Your task to perform on an android device: show emergency info Image 0: 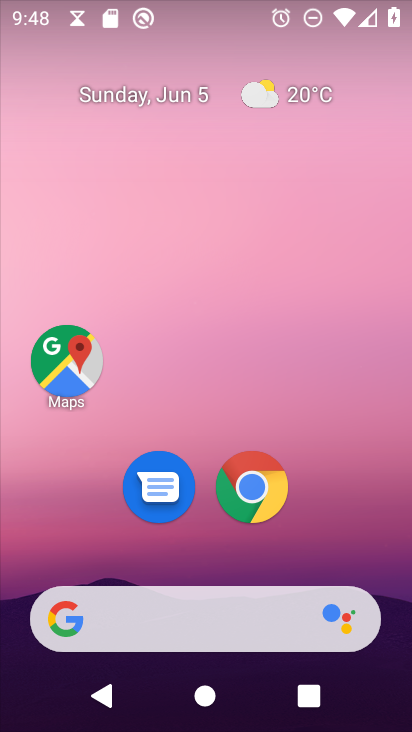
Step 0: drag from (285, 545) to (292, 152)
Your task to perform on an android device: show emergency info Image 1: 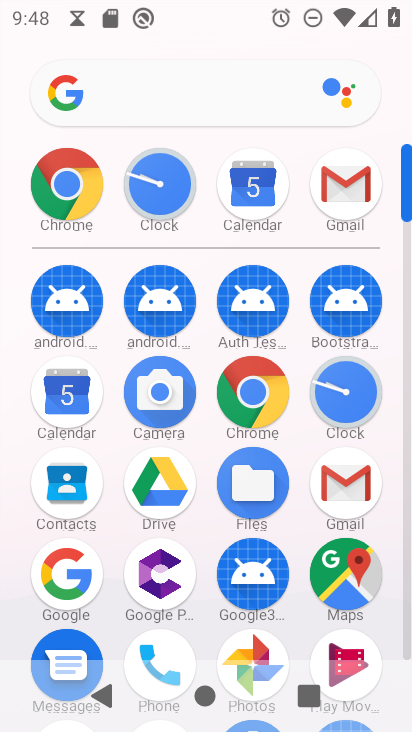
Step 1: drag from (206, 588) to (228, 292)
Your task to perform on an android device: show emergency info Image 2: 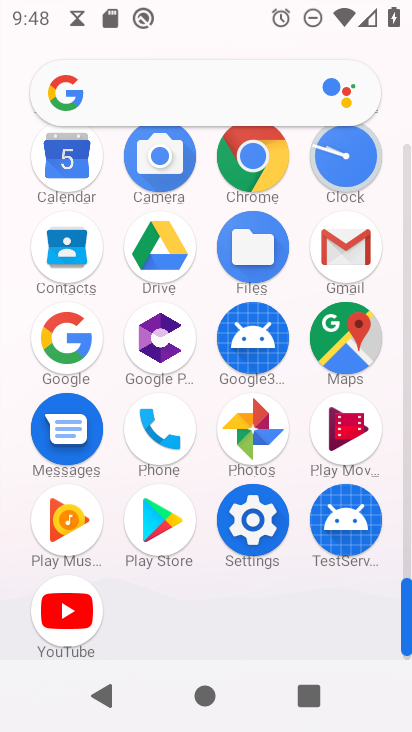
Step 2: click (243, 524)
Your task to perform on an android device: show emergency info Image 3: 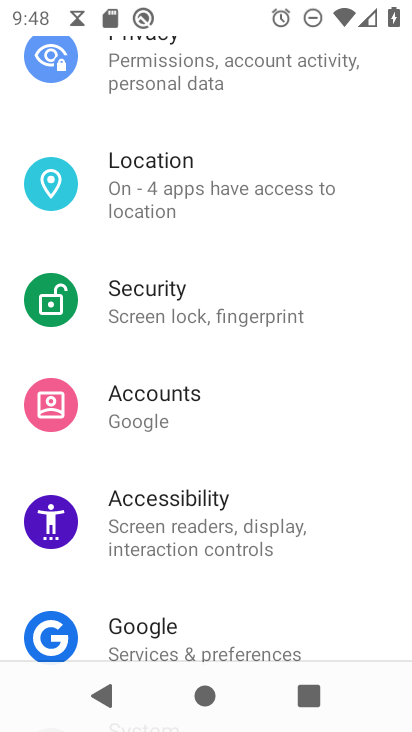
Step 3: drag from (206, 565) to (210, 190)
Your task to perform on an android device: show emergency info Image 4: 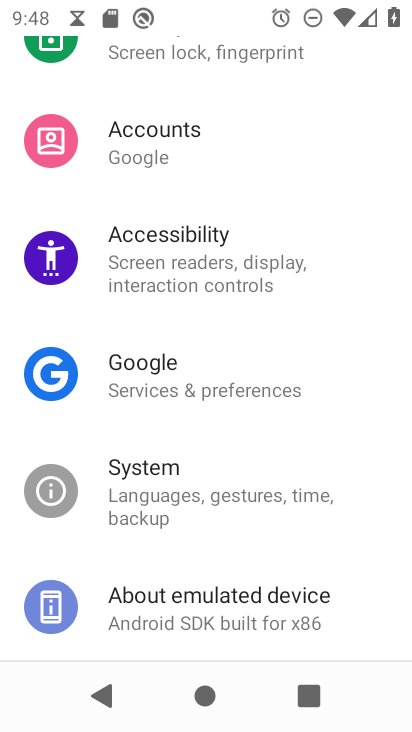
Step 4: click (192, 614)
Your task to perform on an android device: show emergency info Image 5: 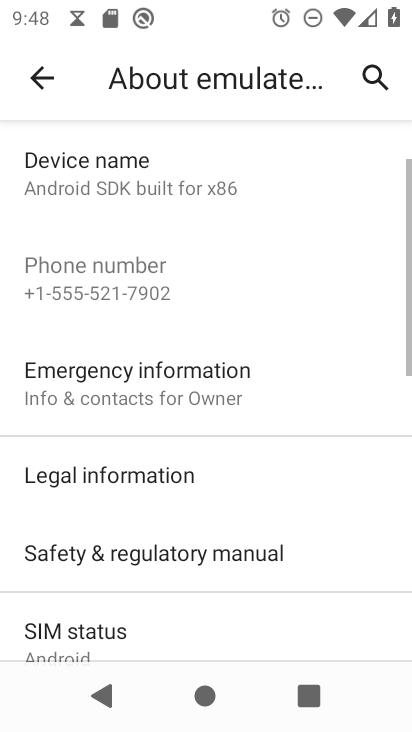
Step 5: click (122, 378)
Your task to perform on an android device: show emergency info Image 6: 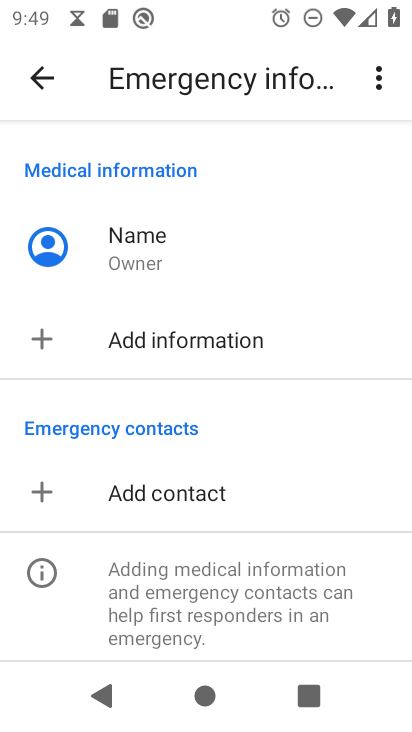
Step 6: task complete